Your task to perform on an android device: change alarm snooze length Image 0: 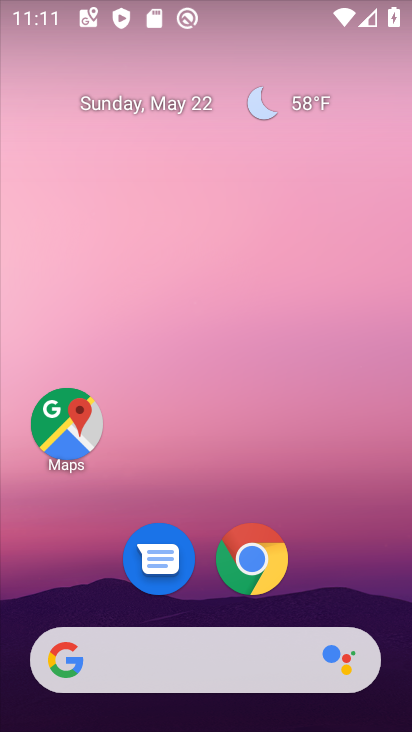
Step 0: drag from (267, 644) to (254, 75)
Your task to perform on an android device: change alarm snooze length Image 1: 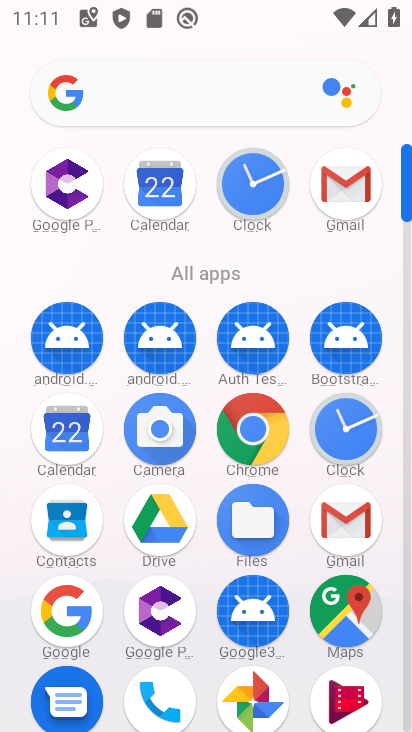
Step 1: click (343, 431)
Your task to perform on an android device: change alarm snooze length Image 2: 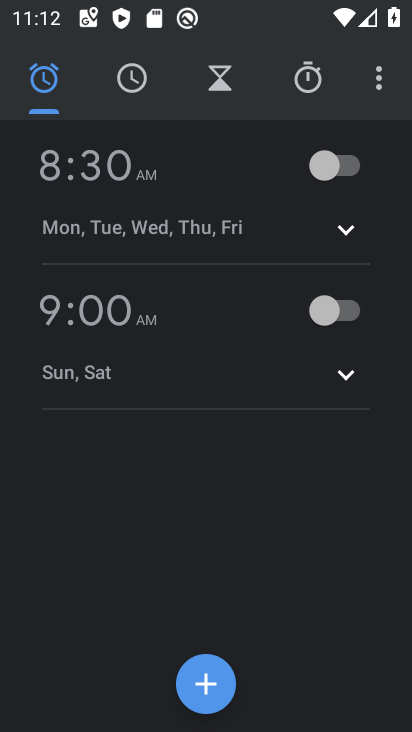
Step 2: click (376, 74)
Your task to perform on an android device: change alarm snooze length Image 3: 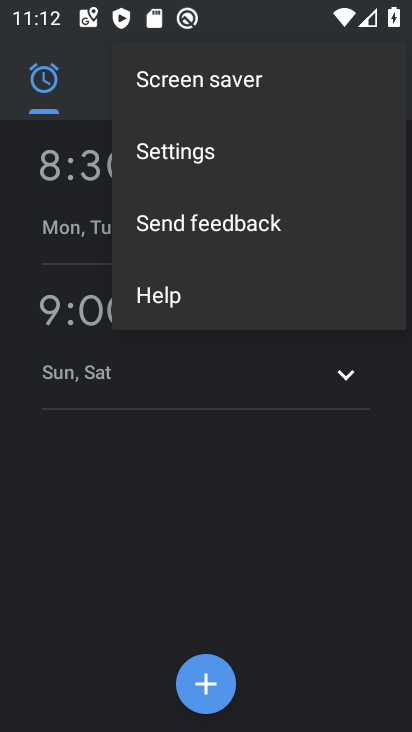
Step 3: click (168, 161)
Your task to perform on an android device: change alarm snooze length Image 4: 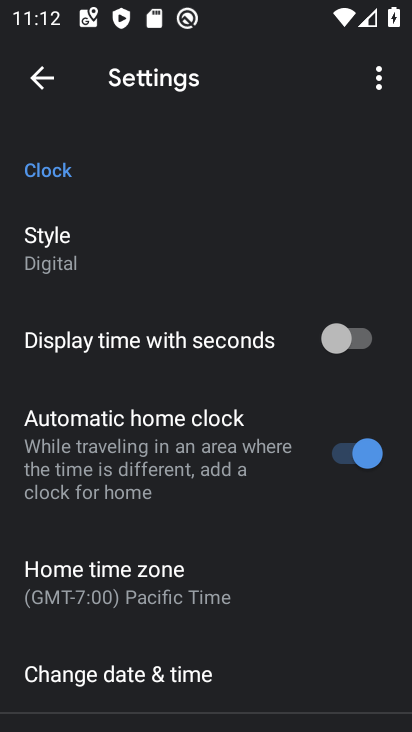
Step 4: drag from (100, 601) to (118, 57)
Your task to perform on an android device: change alarm snooze length Image 5: 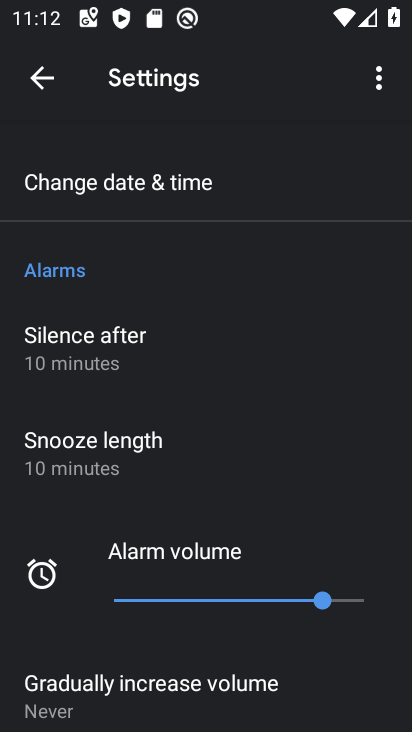
Step 5: click (146, 461)
Your task to perform on an android device: change alarm snooze length Image 6: 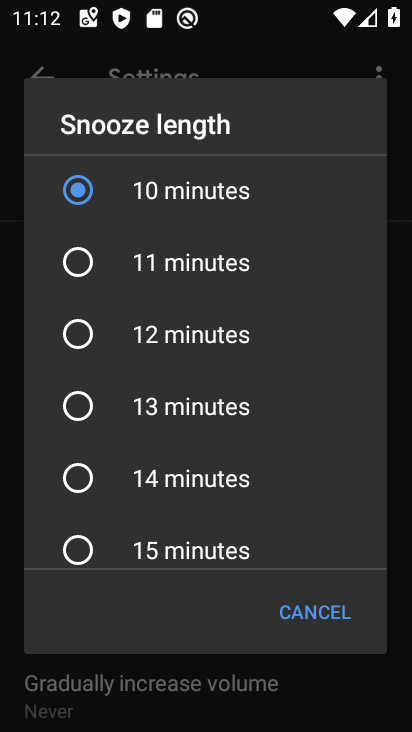
Step 6: click (143, 495)
Your task to perform on an android device: change alarm snooze length Image 7: 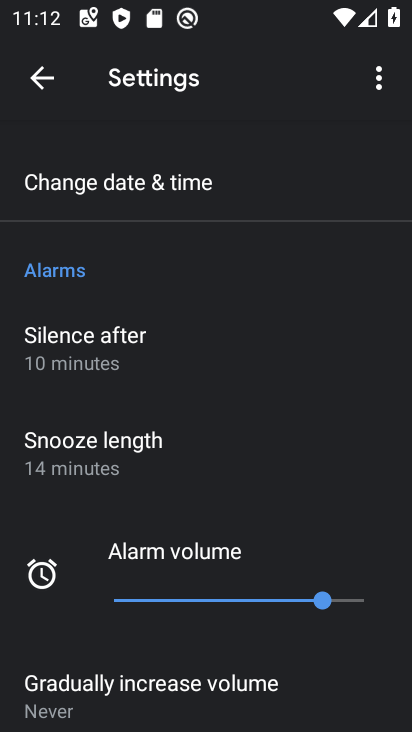
Step 7: task complete